Your task to perform on an android device: allow notifications from all sites in the chrome app Image 0: 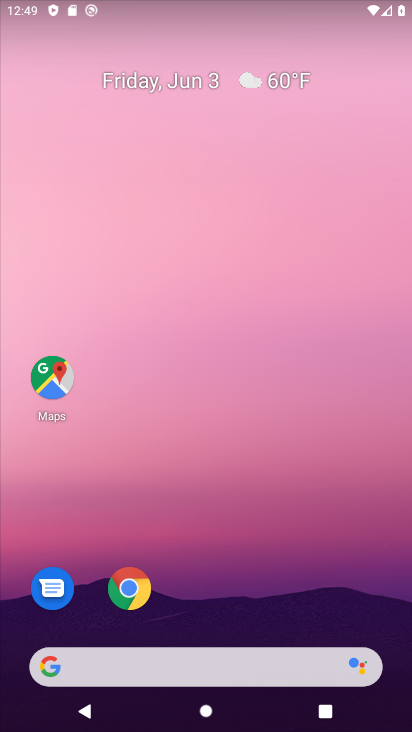
Step 0: click (126, 584)
Your task to perform on an android device: allow notifications from all sites in the chrome app Image 1: 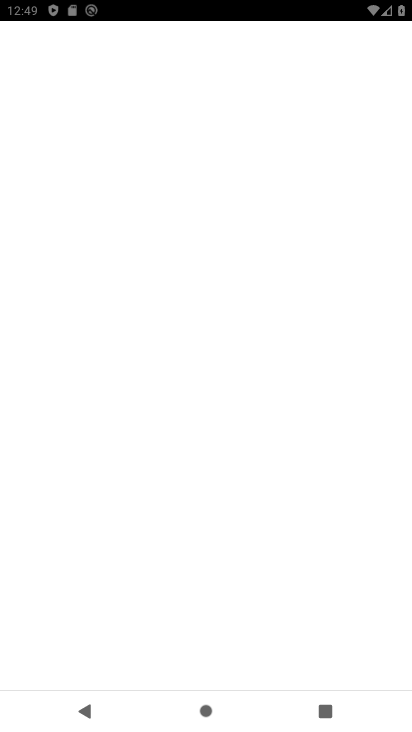
Step 1: click (124, 586)
Your task to perform on an android device: allow notifications from all sites in the chrome app Image 2: 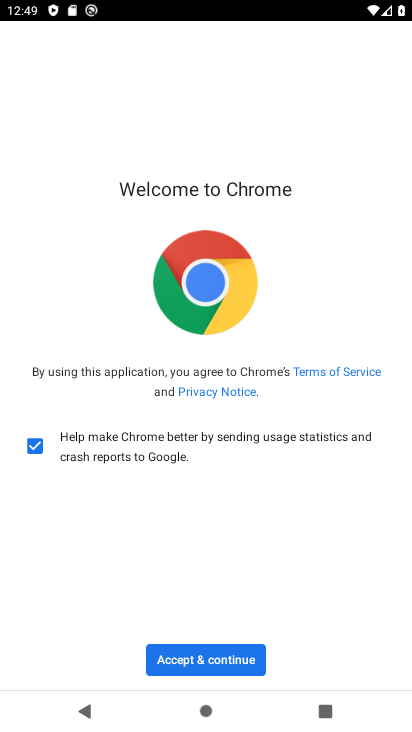
Step 2: click (218, 674)
Your task to perform on an android device: allow notifications from all sites in the chrome app Image 3: 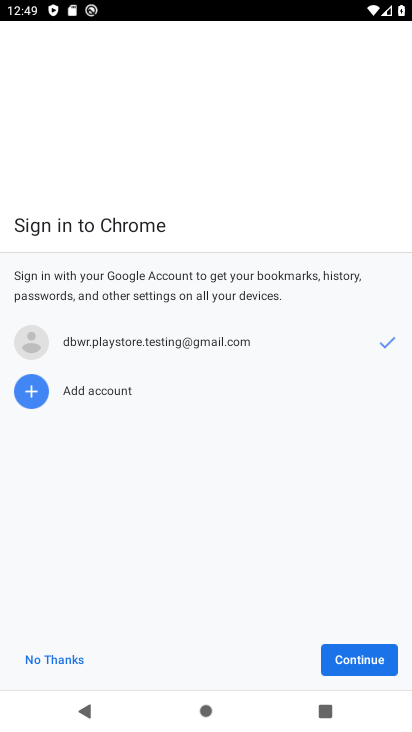
Step 3: click (374, 666)
Your task to perform on an android device: allow notifications from all sites in the chrome app Image 4: 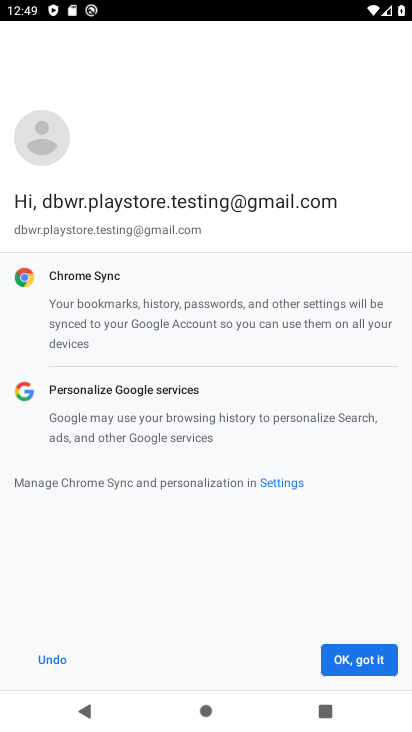
Step 4: click (370, 659)
Your task to perform on an android device: allow notifications from all sites in the chrome app Image 5: 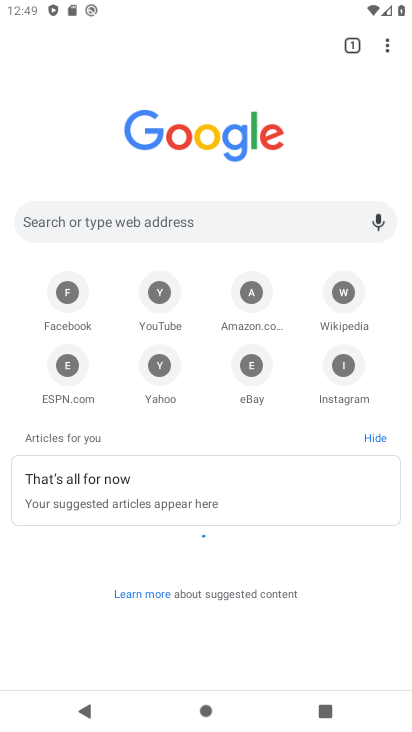
Step 5: drag from (381, 43) to (229, 389)
Your task to perform on an android device: allow notifications from all sites in the chrome app Image 6: 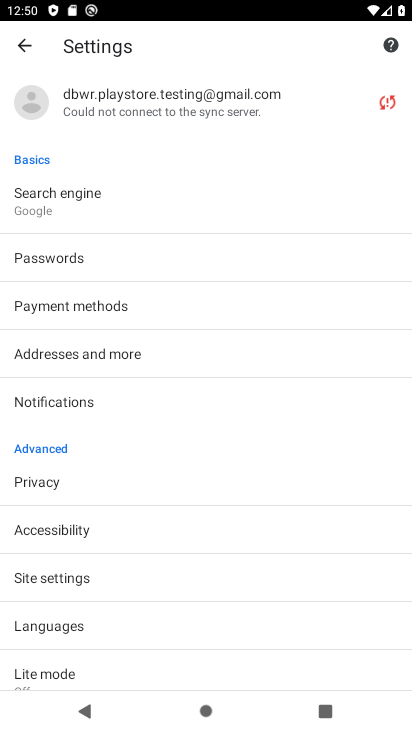
Step 6: click (59, 387)
Your task to perform on an android device: allow notifications from all sites in the chrome app Image 7: 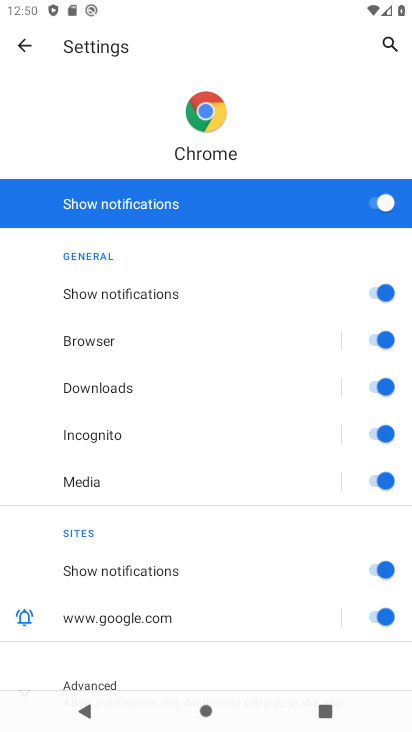
Step 7: task complete